Your task to perform on an android device: Open the map Image 0: 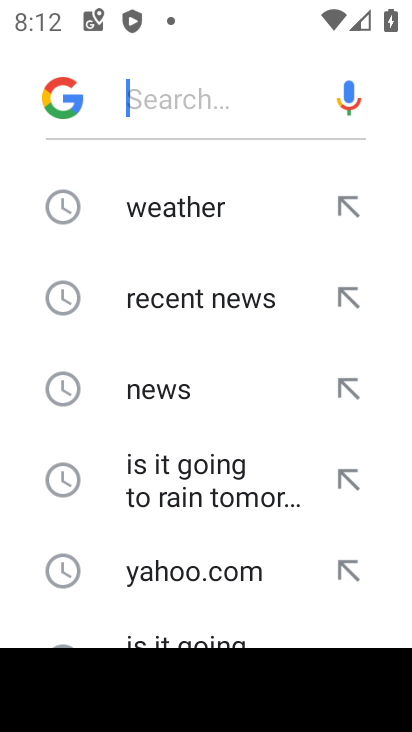
Step 0: press back button
Your task to perform on an android device: Open the map Image 1: 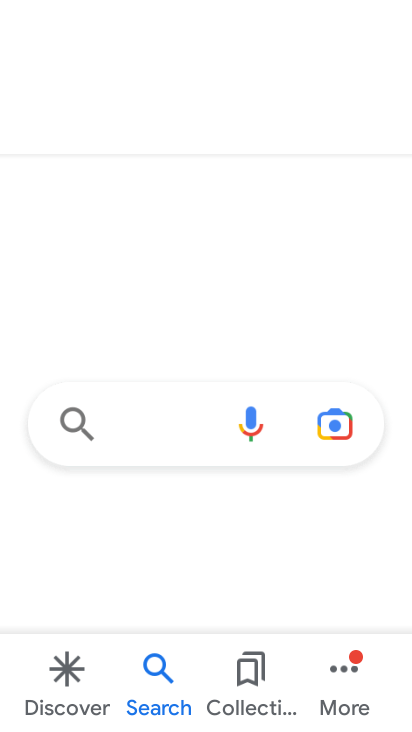
Step 1: press back button
Your task to perform on an android device: Open the map Image 2: 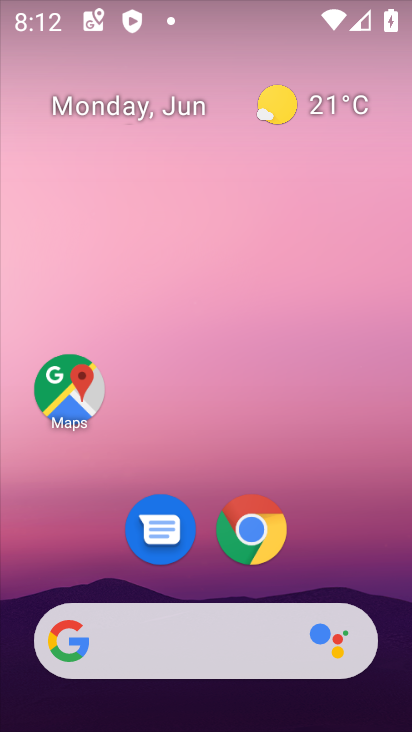
Step 2: drag from (61, 384) to (107, 383)
Your task to perform on an android device: Open the map Image 3: 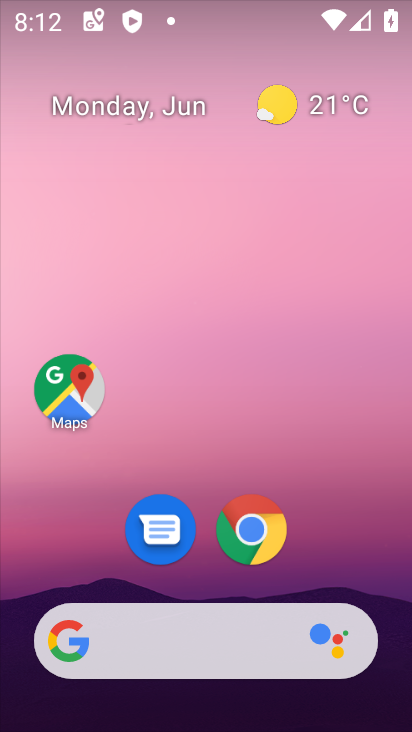
Step 3: click (74, 393)
Your task to perform on an android device: Open the map Image 4: 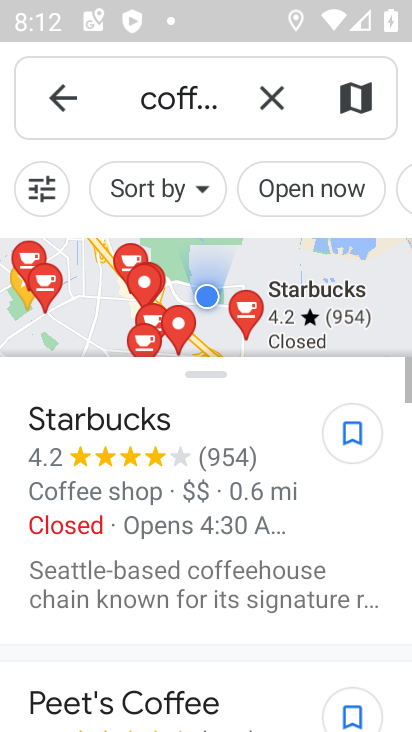
Step 4: click (277, 96)
Your task to perform on an android device: Open the map Image 5: 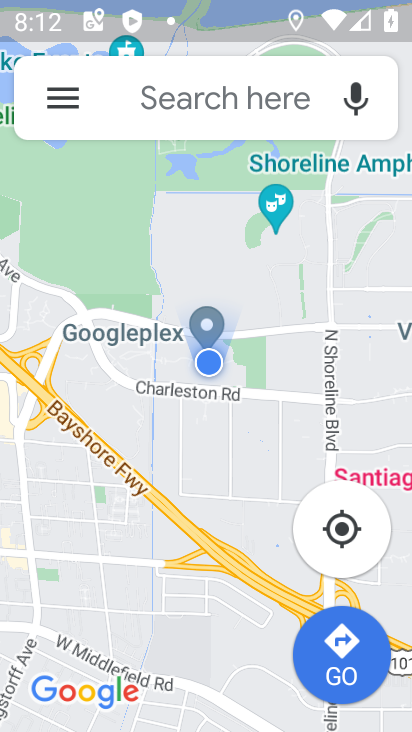
Step 5: task complete